Your task to perform on an android device: turn off javascript in the chrome app Image 0: 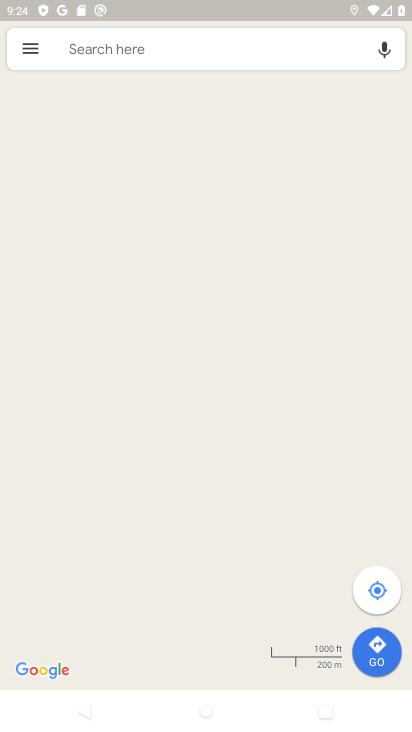
Step 0: press home button
Your task to perform on an android device: turn off javascript in the chrome app Image 1: 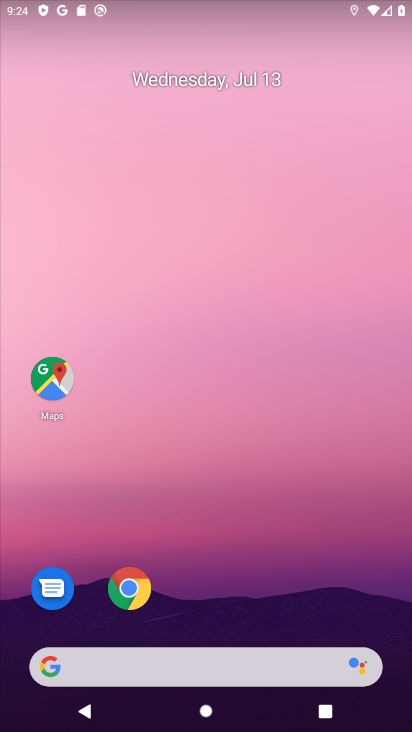
Step 1: click (126, 585)
Your task to perform on an android device: turn off javascript in the chrome app Image 2: 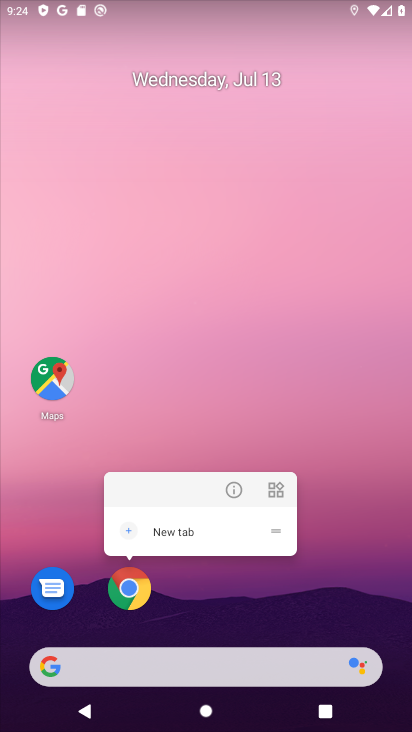
Step 2: click (129, 587)
Your task to perform on an android device: turn off javascript in the chrome app Image 3: 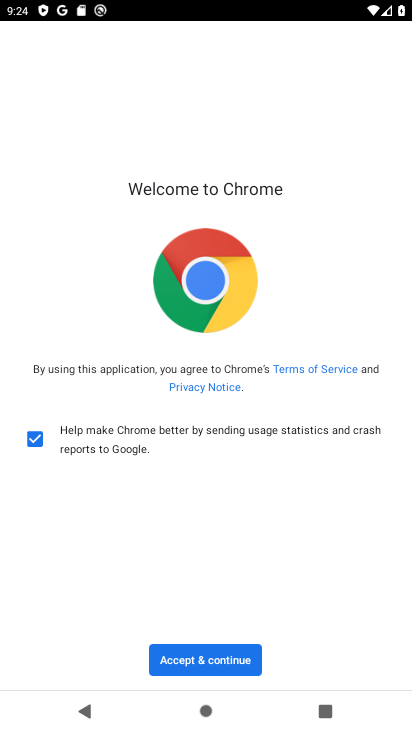
Step 3: click (195, 673)
Your task to perform on an android device: turn off javascript in the chrome app Image 4: 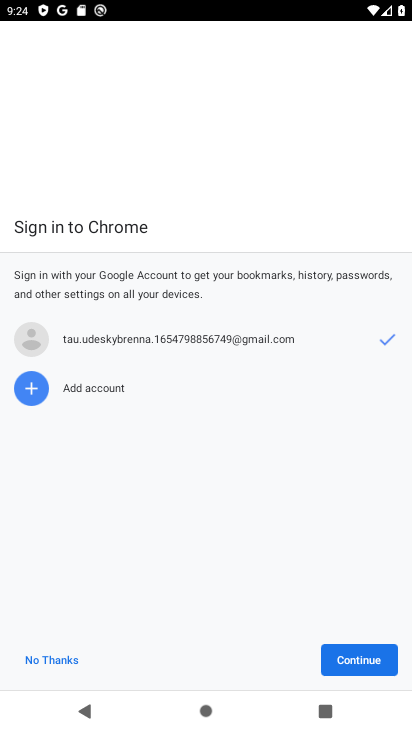
Step 4: click (349, 662)
Your task to perform on an android device: turn off javascript in the chrome app Image 5: 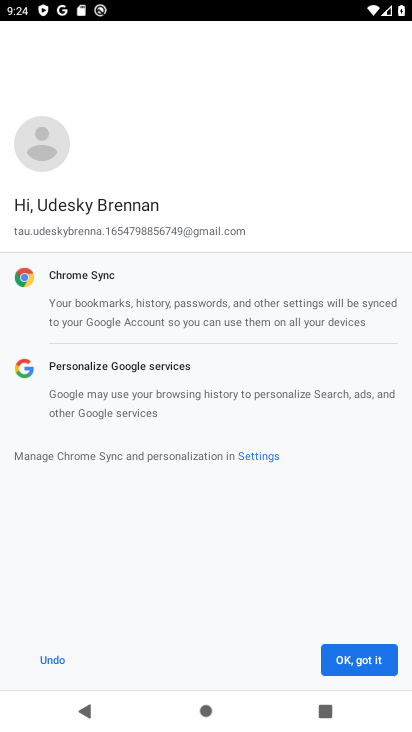
Step 5: click (349, 662)
Your task to perform on an android device: turn off javascript in the chrome app Image 6: 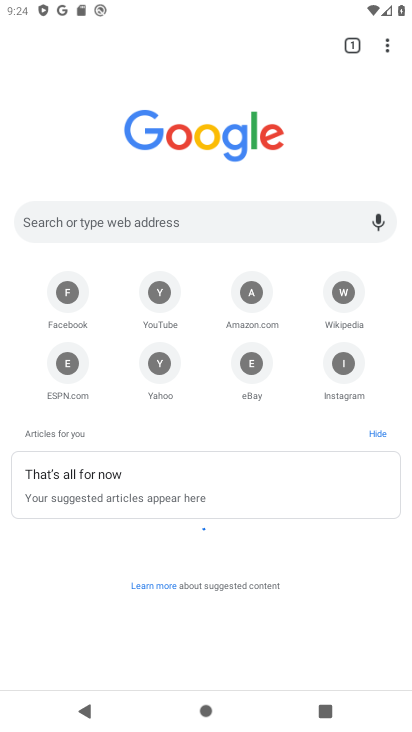
Step 6: click (384, 46)
Your task to perform on an android device: turn off javascript in the chrome app Image 7: 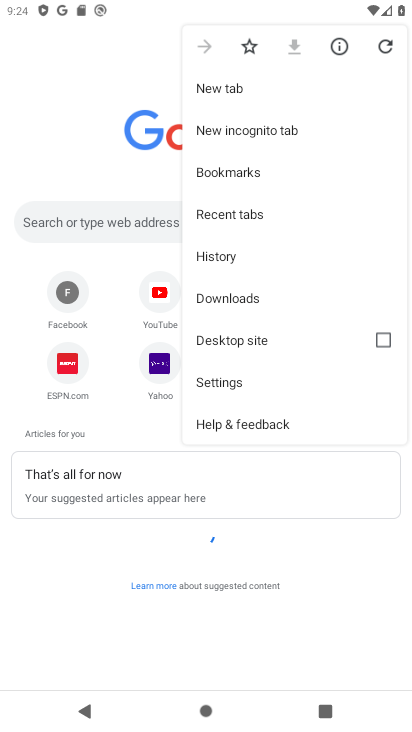
Step 7: click (234, 374)
Your task to perform on an android device: turn off javascript in the chrome app Image 8: 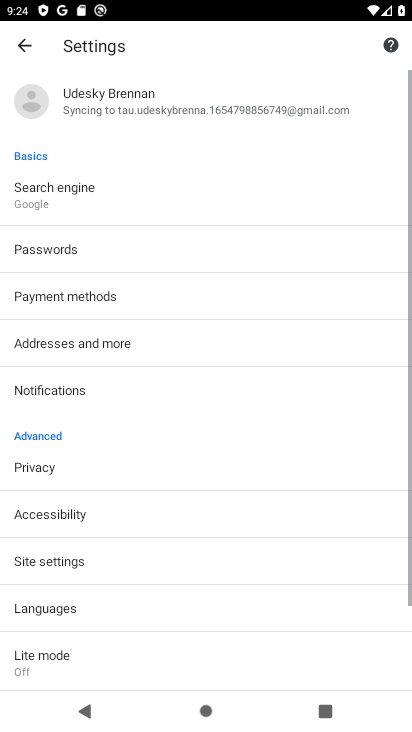
Step 8: click (52, 556)
Your task to perform on an android device: turn off javascript in the chrome app Image 9: 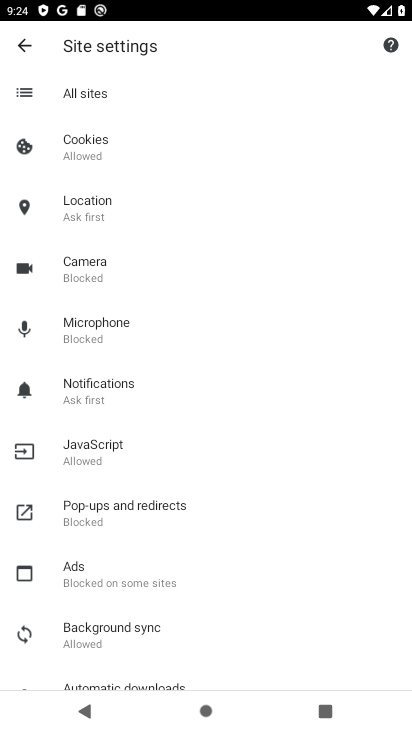
Step 9: click (144, 445)
Your task to perform on an android device: turn off javascript in the chrome app Image 10: 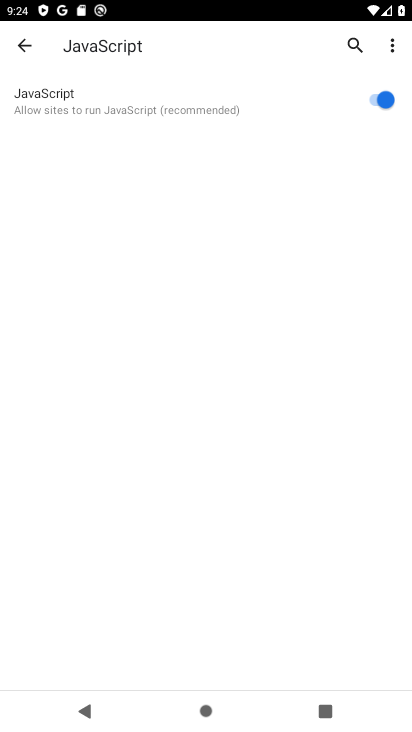
Step 10: click (384, 99)
Your task to perform on an android device: turn off javascript in the chrome app Image 11: 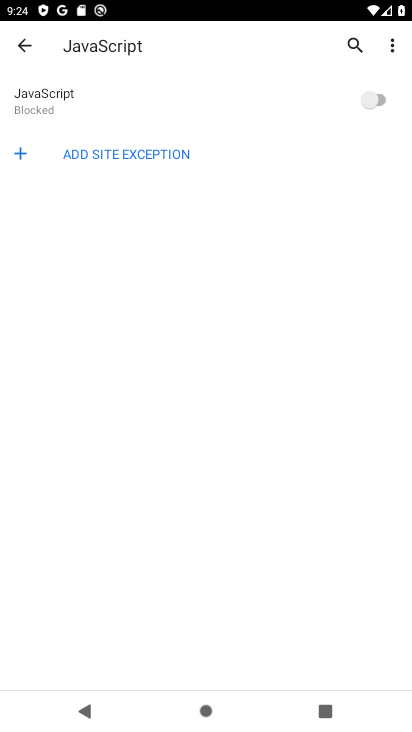
Step 11: task complete